Your task to perform on an android device: change alarm snooze length Image 0: 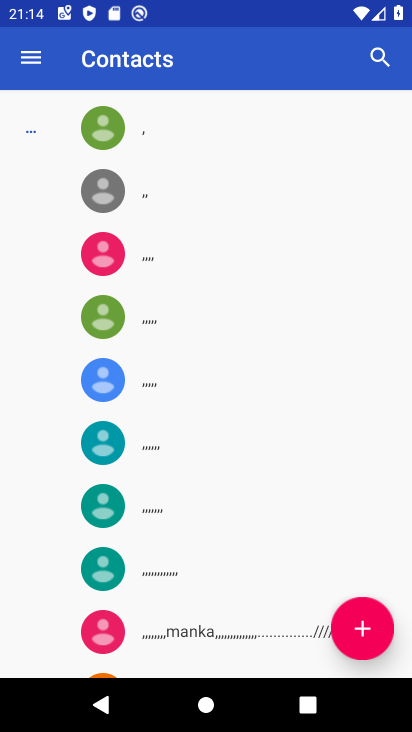
Step 0: press home button
Your task to perform on an android device: change alarm snooze length Image 1: 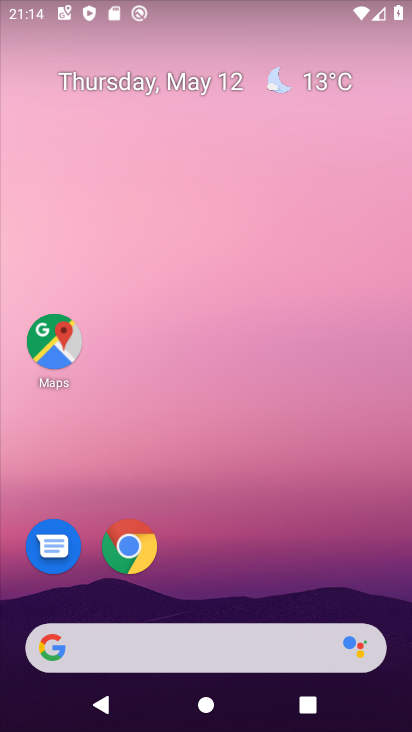
Step 1: drag from (220, 557) to (241, 50)
Your task to perform on an android device: change alarm snooze length Image 2: 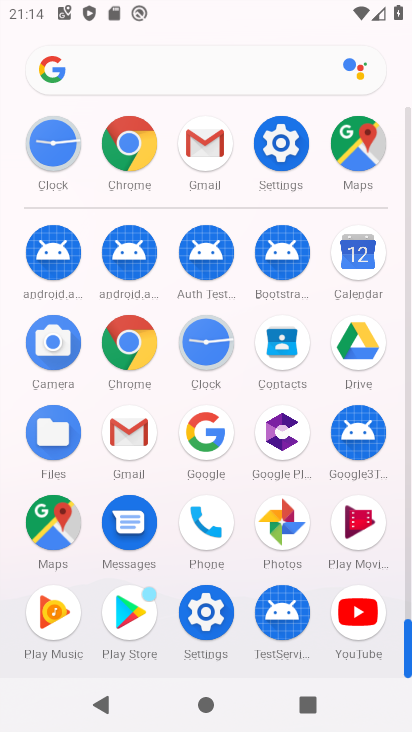
Step 2: click (199, 336)
Your task to perform on an android device: change alarm snooze length Image 3: 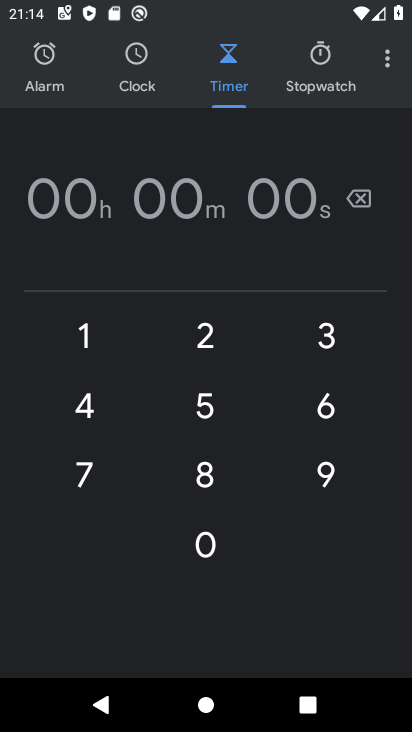
Step 3: click (386, 56)
Your task to perform on an android device: change alarm snooze length Image 4: 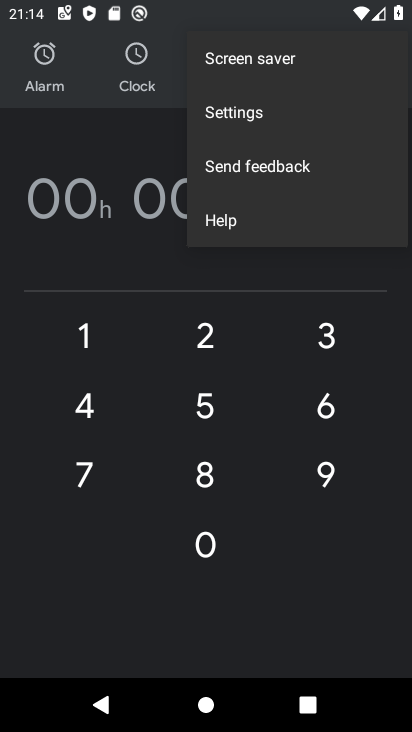
Step 4: click (238, 110)
Your task to perform on an android device: change alarm snooze length Image 5: 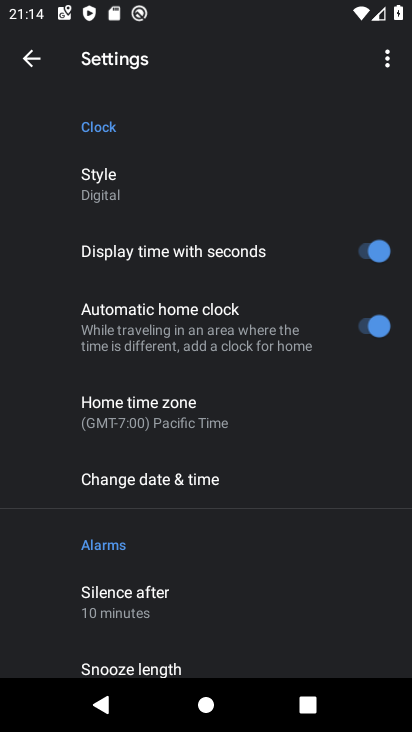
Step 5: drag from (229, 567) to (246, 191)
Your task to perform on an android device: change alarm snooze length Image 6: 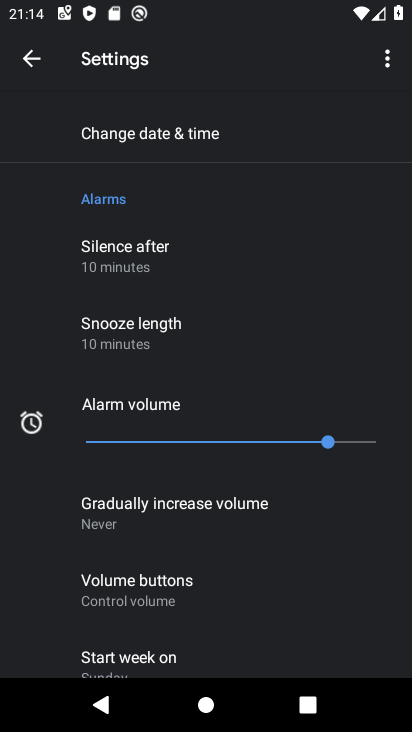
Step 6: click (146, 331)
Your task to perform on an android device: change alarm snooze length Image 7: 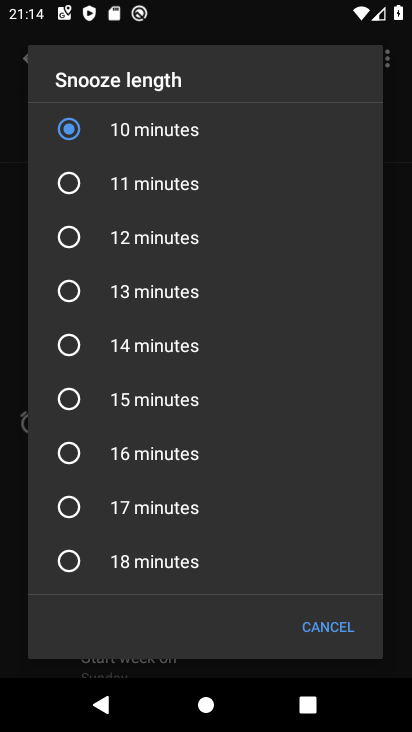
Step 7: click (140, 178)
Your task to perform on an android device: change alarm snooze length Image 8: 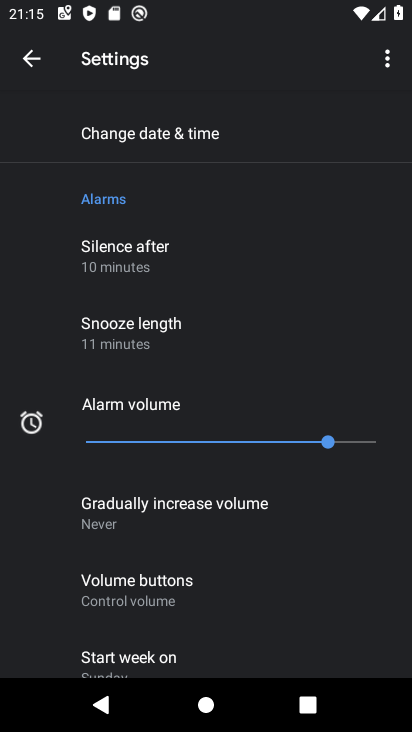
Step 8: task complete